Your task to perform on an android device: Search for sushi restaurants on Maps Image 0: 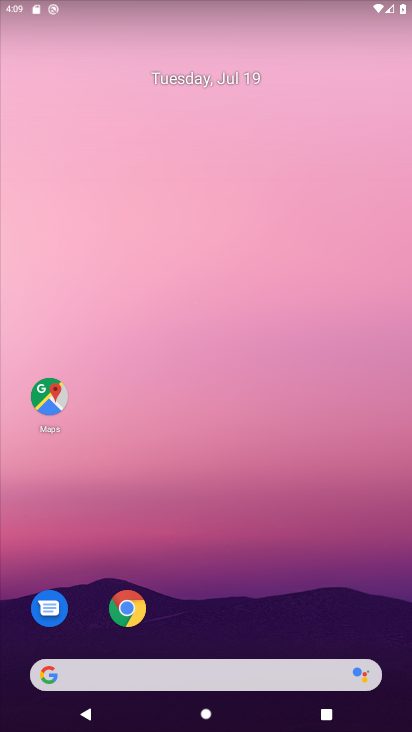
Step 0: click (49, 401)
Your task to perform on an android device: Search for sushi restaurants on Maps Image 1: 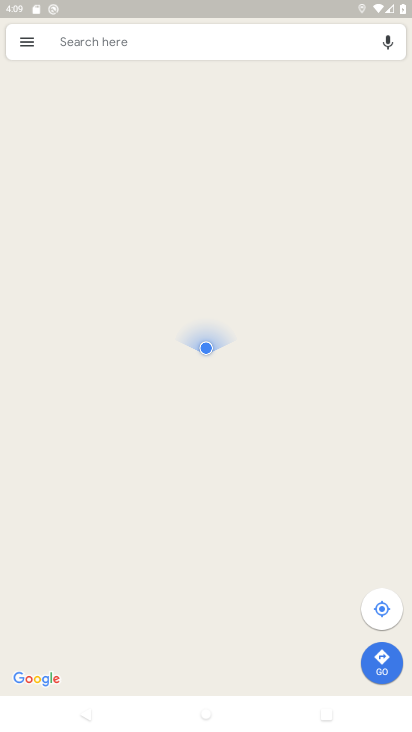
Step 1: click (253, 53)
Your task to perform on an android device: Search for sushi restaurants on Maps Image 2: 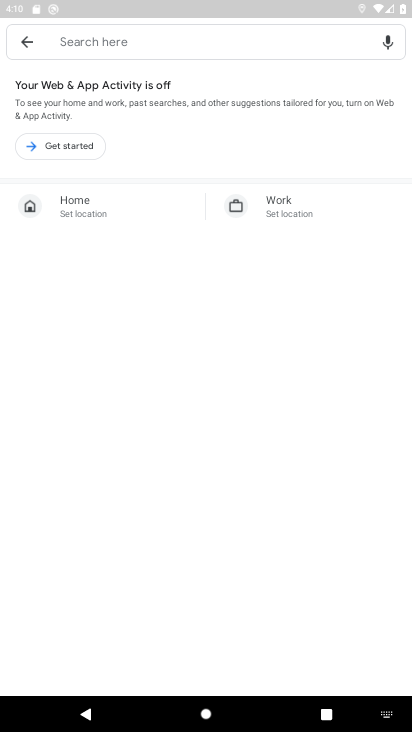
Step 2: type "sushi restaurants"
Your task to perform on an android device: Search for sushi restaurants on Maps Image 3: 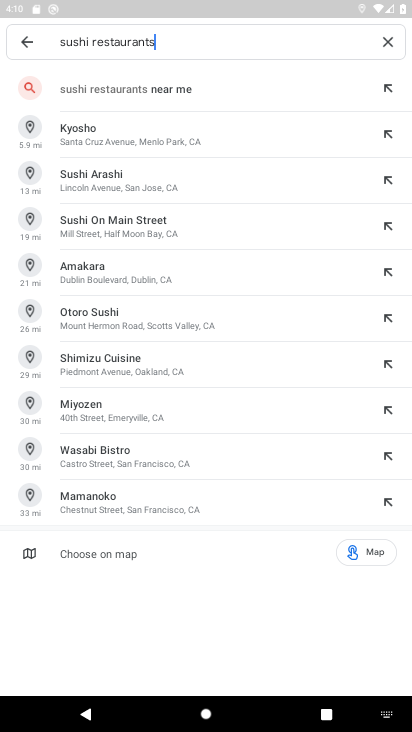
Step 3: click (142, 89)
Your task to perform on an android device: Search for sushi restaurants on Maps Image 4: 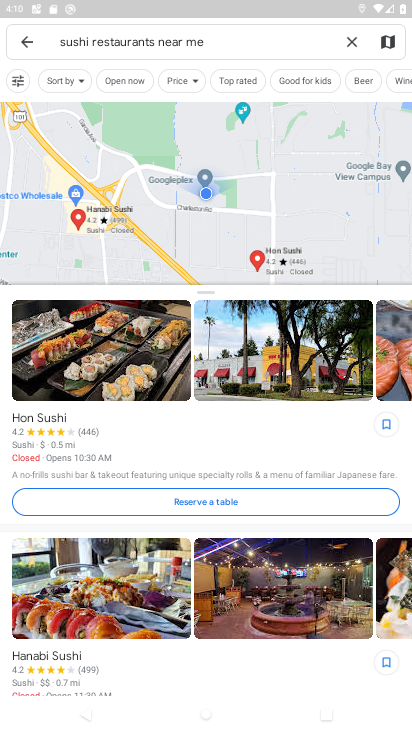
Step 4: task complete